Your task to perform on an android device: clear history in the chrome app Image 0: 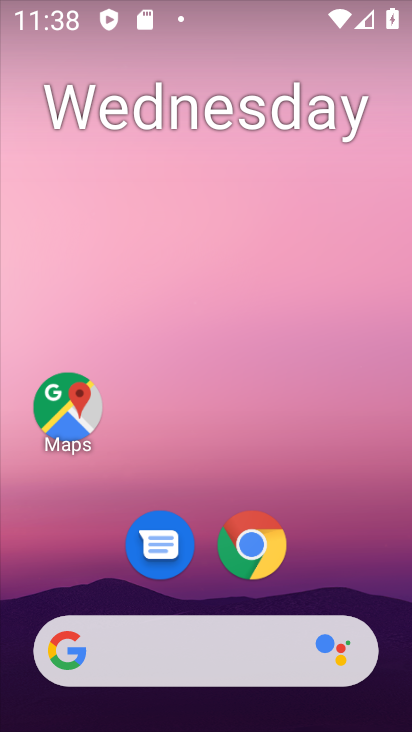
Step 0: click (269, 553)
Your task to perform on an android device: clear history in the chrome app Image 1: 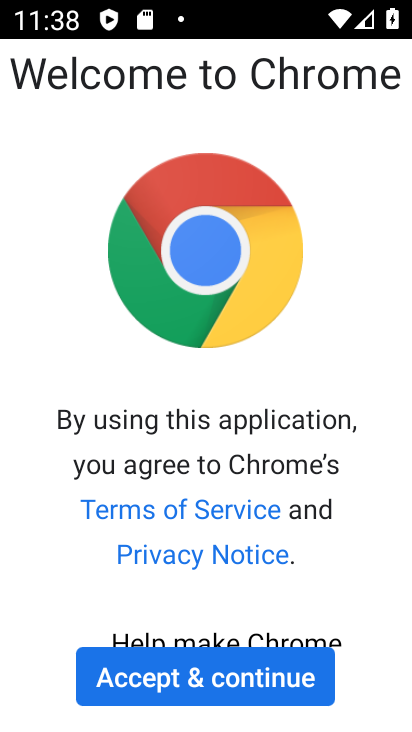
Step 1: click (220, 685)
Your task to perform on an android device: clear history in the chrome app Image 2: 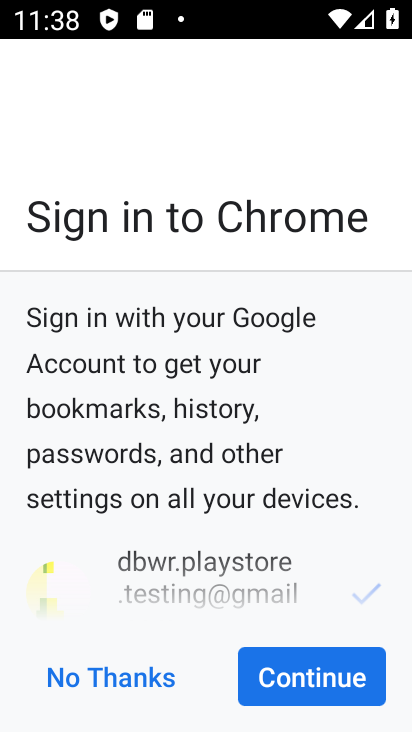
Step 2: click (313, 699)
Your task to perform on an android device: clear history in the chrome app Image 3: 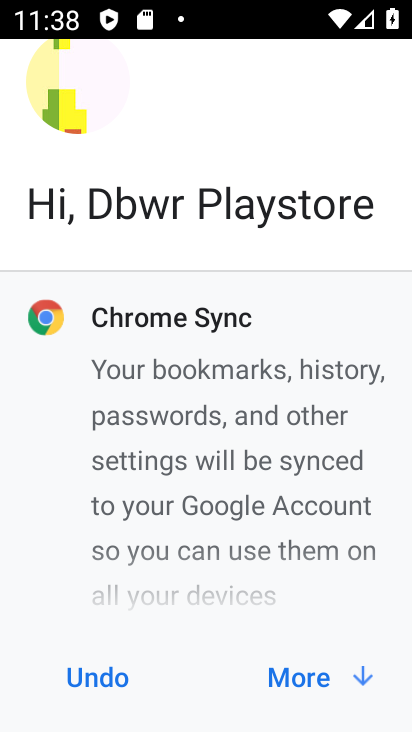
Step 3: click (309, 691)
Your task to perform on an android device: clear history in the chrome app Image 4: 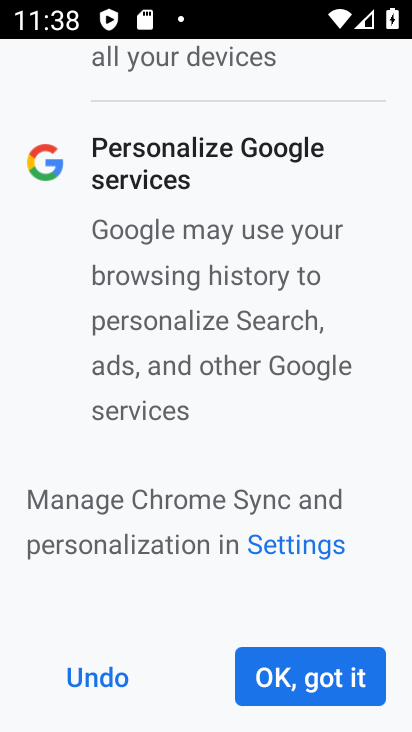
Step 4: click (308, 690)
Your task to perform on an android device: clear history in the chrome app Image 5: 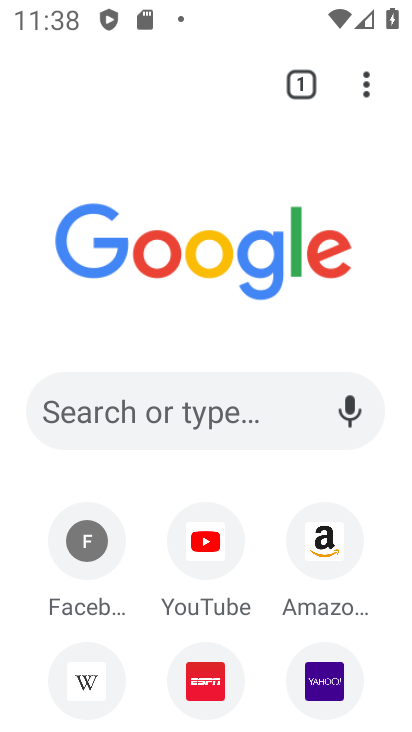
Step 5: task complete